Your task to perform on an android device: Go to internet settings Image 0: 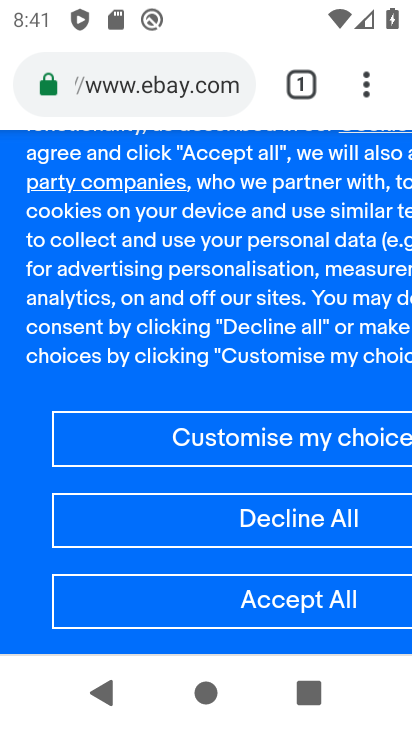
Step 0: press home button
Your task to perform on an android device: Go to internet settings Image 1: 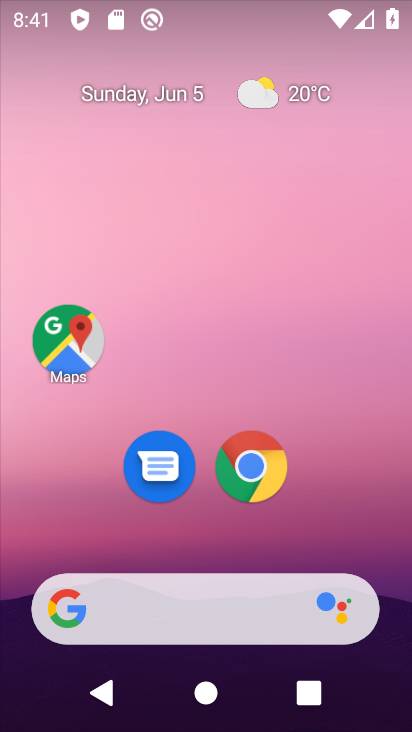
Step 1: drag from (198, 545) to (173, 151)
Your task to perform on an android device: Go to internet settings Image 2: 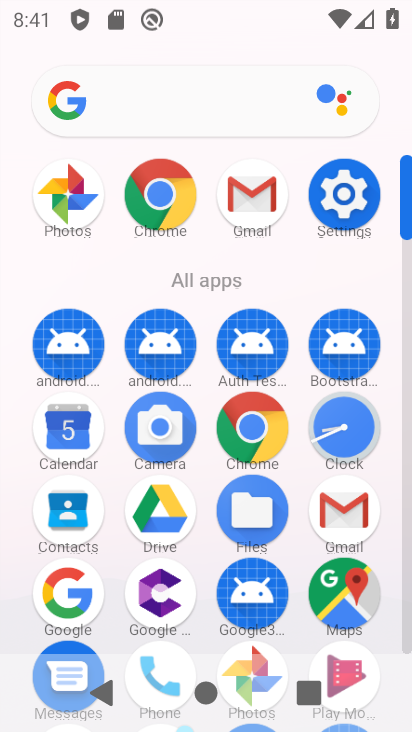
Step 2: click (330, 208)
Your task to perform on an android device: Go to internet settings Image 3: 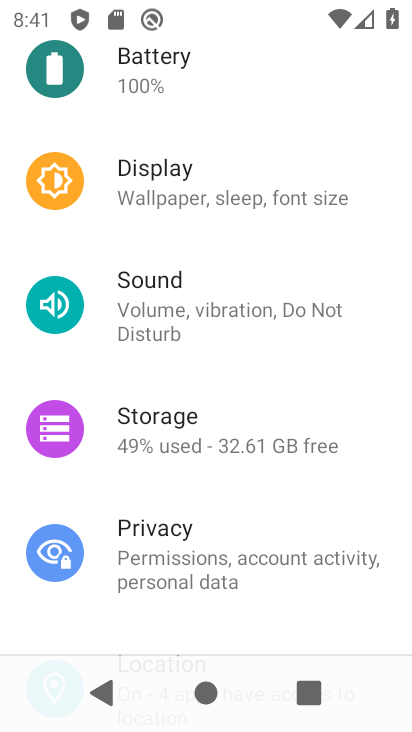
Step 3: drag from (239, 164) to (91, 725)
Your task to perform on an android device: Go to internet settings Image 4: 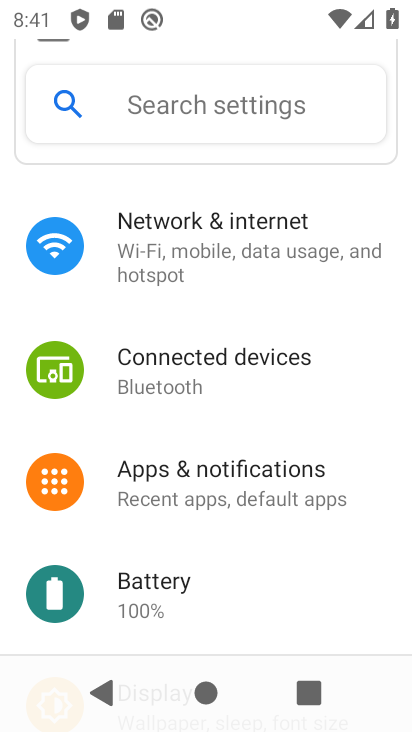
Step 4: click (194, 244)
Your task to perform on an android device: Go to internet settings Image 5: 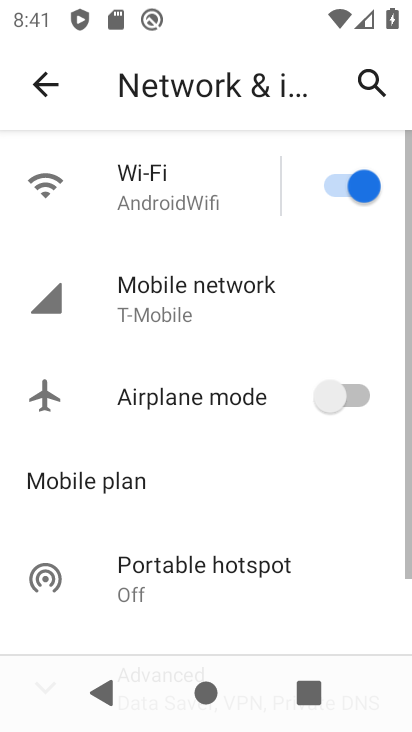
Step 5: task complete